Your task to perform on an android device: find snoozed emails in the gmail app Image 0: 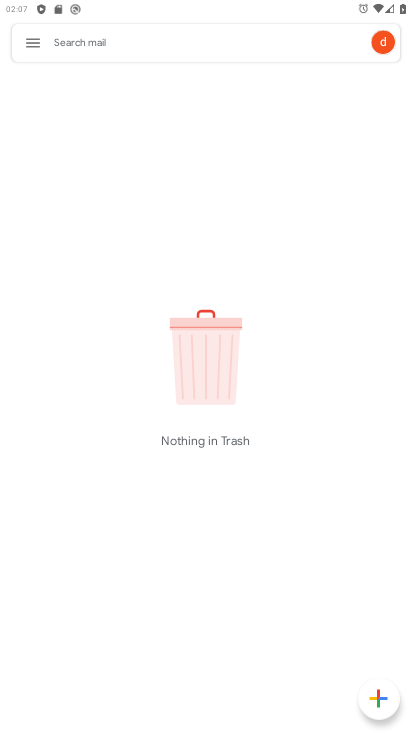
Step 0: press home button
Your task to perform on an android device: find snoozed emails in the gmail app Image 1: 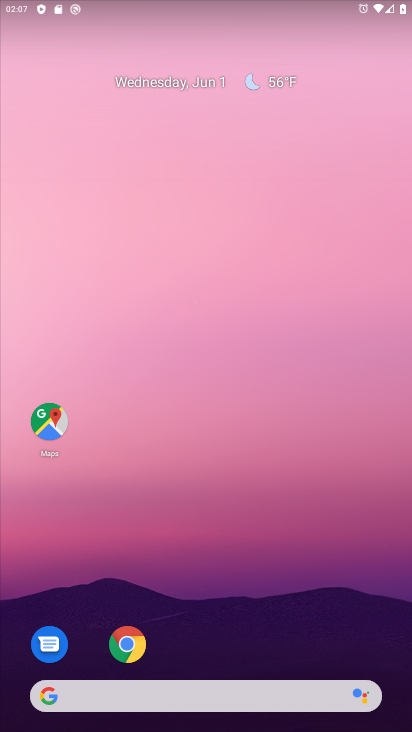
Step 1: drag from (144, 676) to (182, 438)
Your task to perform on an android device: find snoozed emails in the gmail app Image 2: 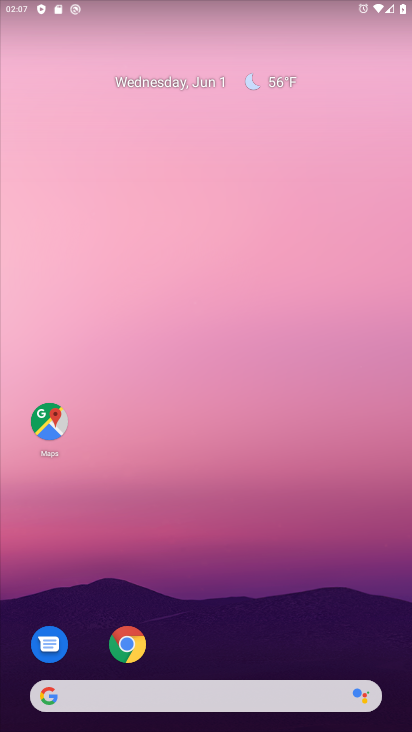
Step 2: drag from (239, 592) to (239, 183)
Your task to perform on an android device: find snoozed emails in the gmail app Image 3: 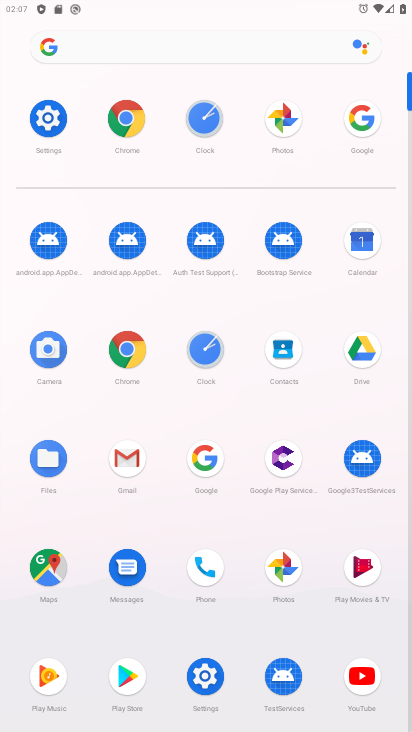
Step 3: click (121, 464)
Your task to perform on an android device: find snoozed emails in the gmail app Image 4: 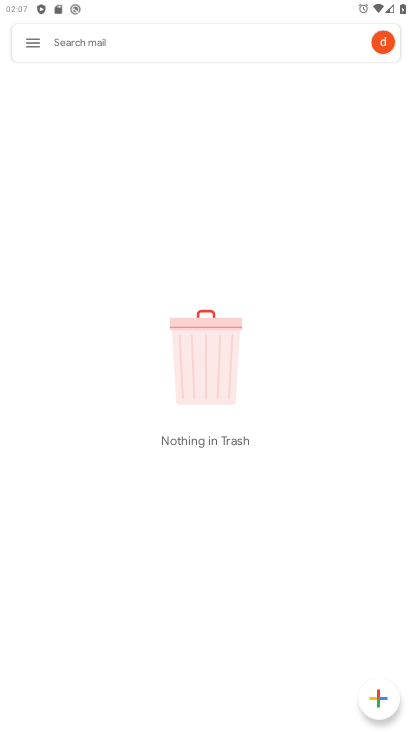
Step 4: click (30, 41)
Your task to perform on an android device: find snoozed emails in the gmail app Image 5: 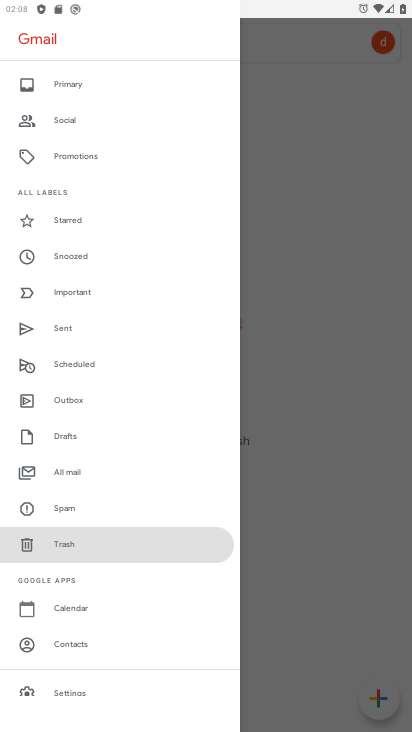
Step 5: click (81, 257)
Your task to perform on an android device: find snoozed emails in the gmail app Image 6: 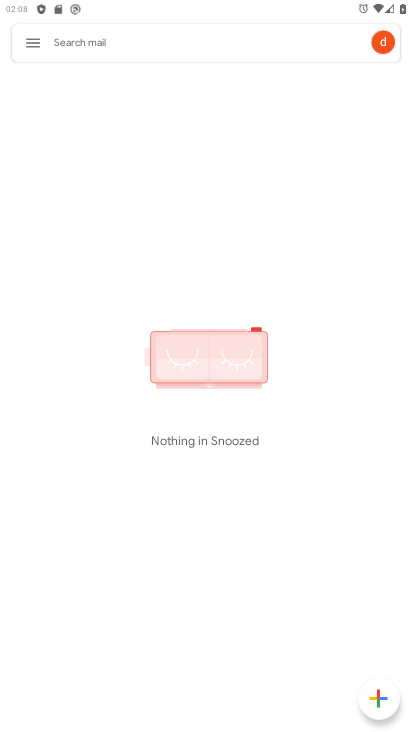
Step 6: task complete